Your task to perform on an android device: Open calendar and show me the first week of next month Image 0: 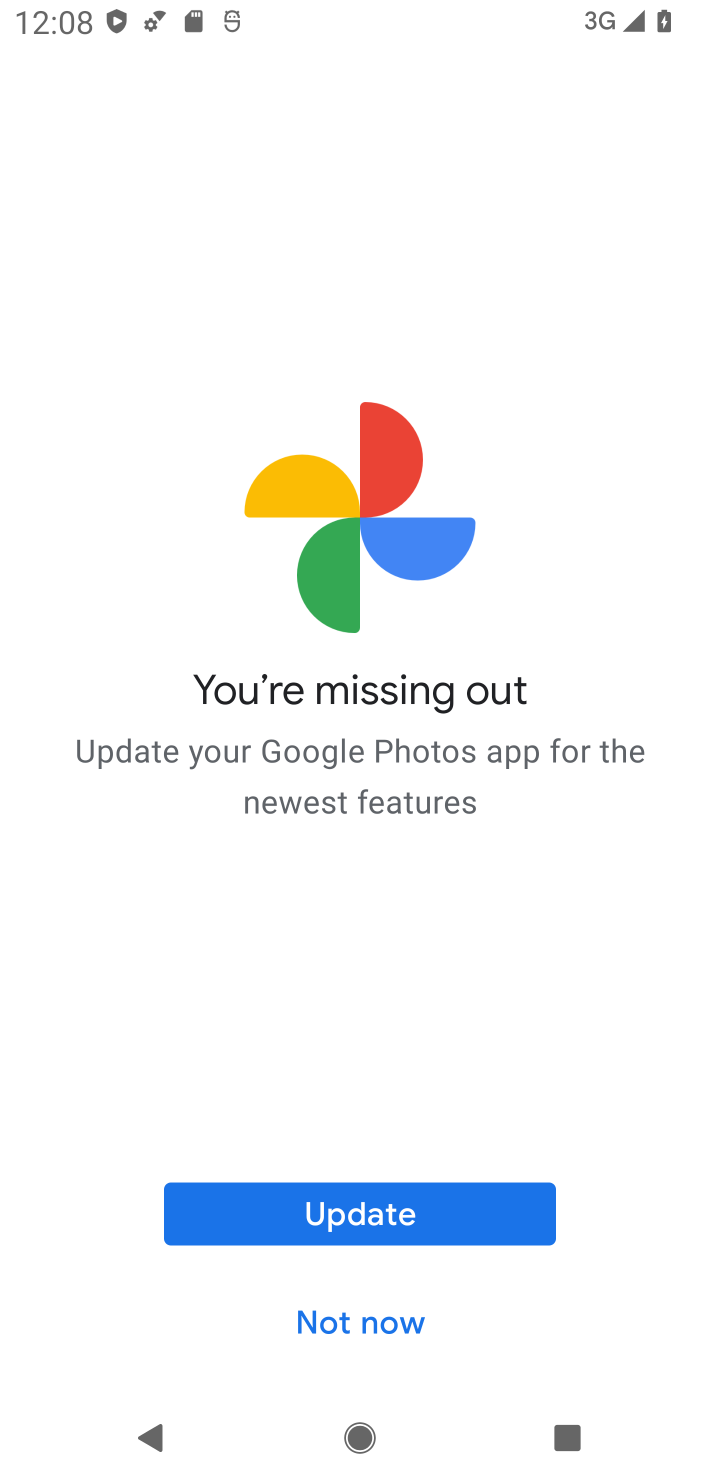
Step 0: click (332, 1329)
Your task to perform on an android device: Open calendar and show me the first week of next month Image 1: 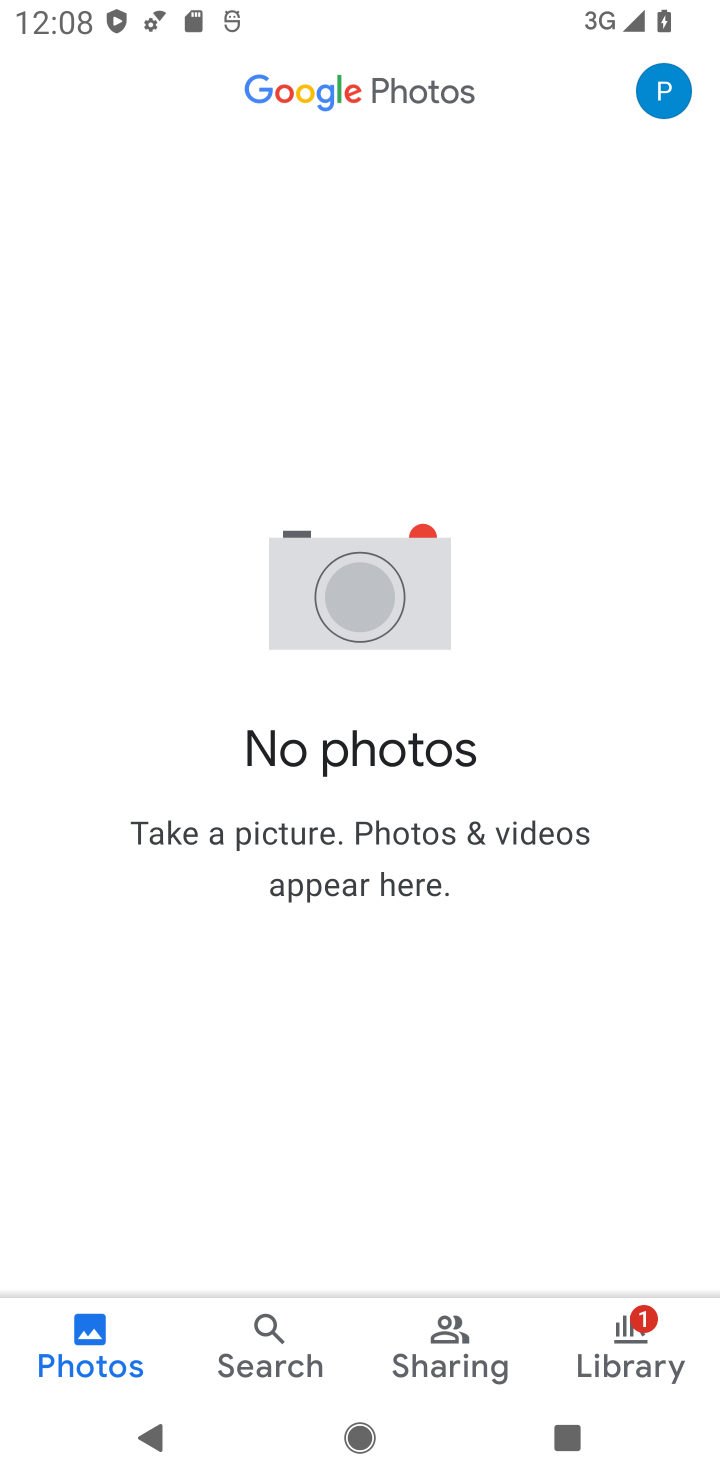
Step 1: press home button
Your task to perform on an android device: Open calendar and show me the first week of next month Image 2: 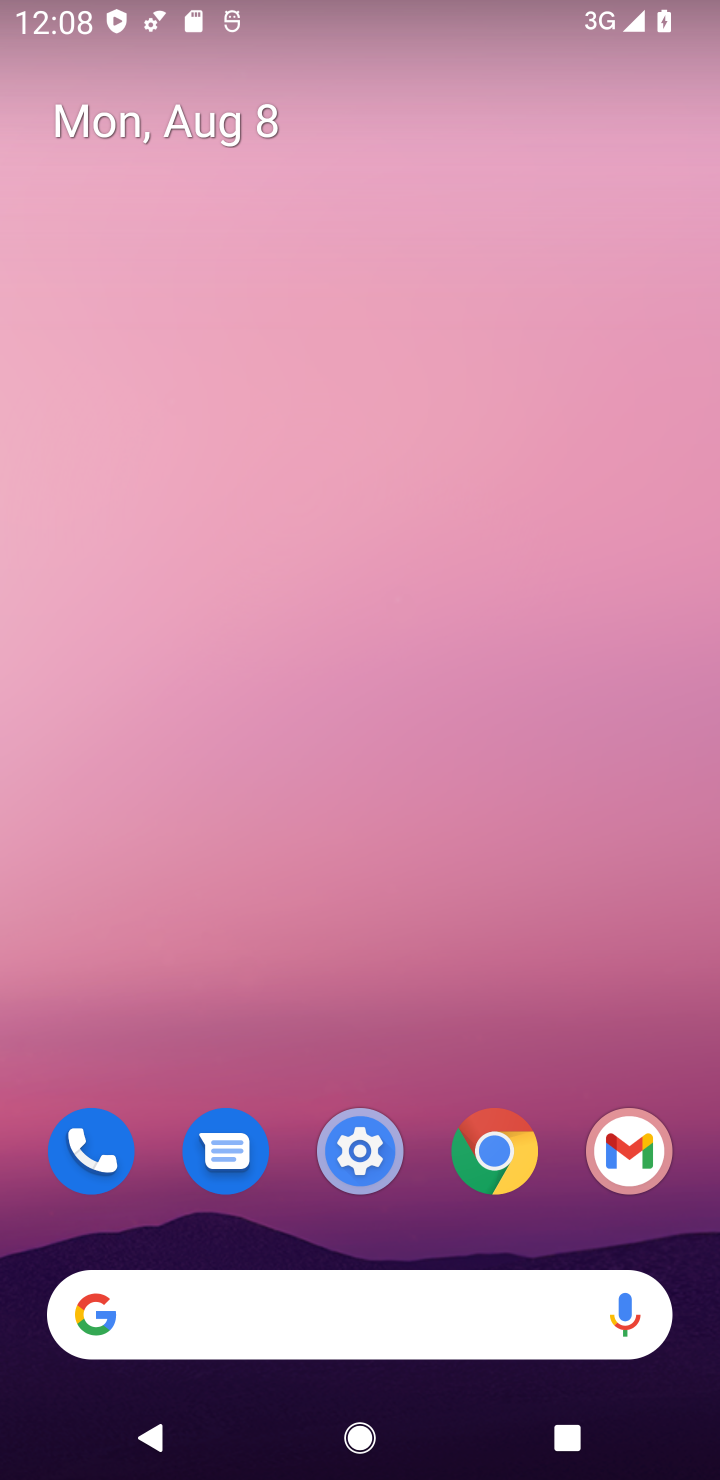
Step 2: drag from (367, 1266) to (371, 417)
Your task to perform on an android device: Open calendar and show me the first week of next month Image 3: 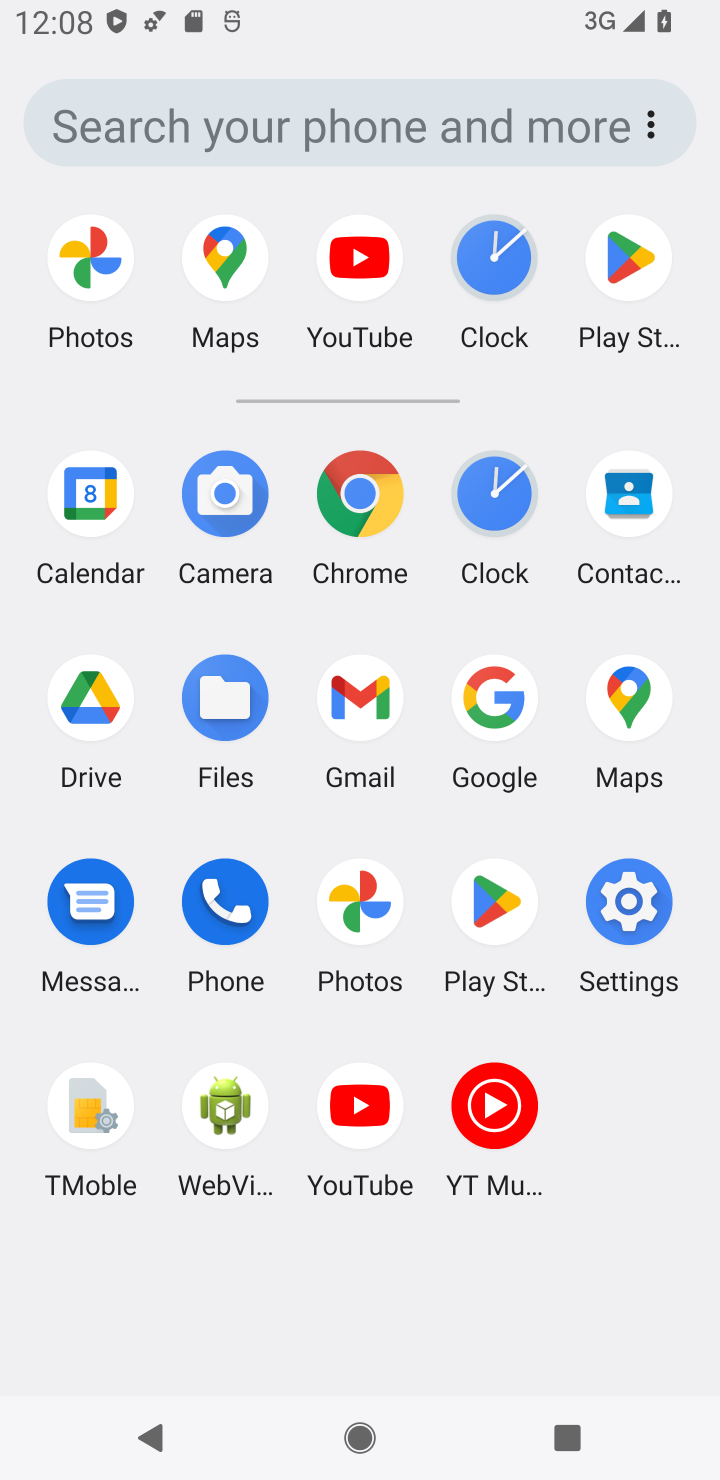
Step 3: click (91, 525)
Your task to perform on an android device: Open calendar and show me the first week of next month Image 4: 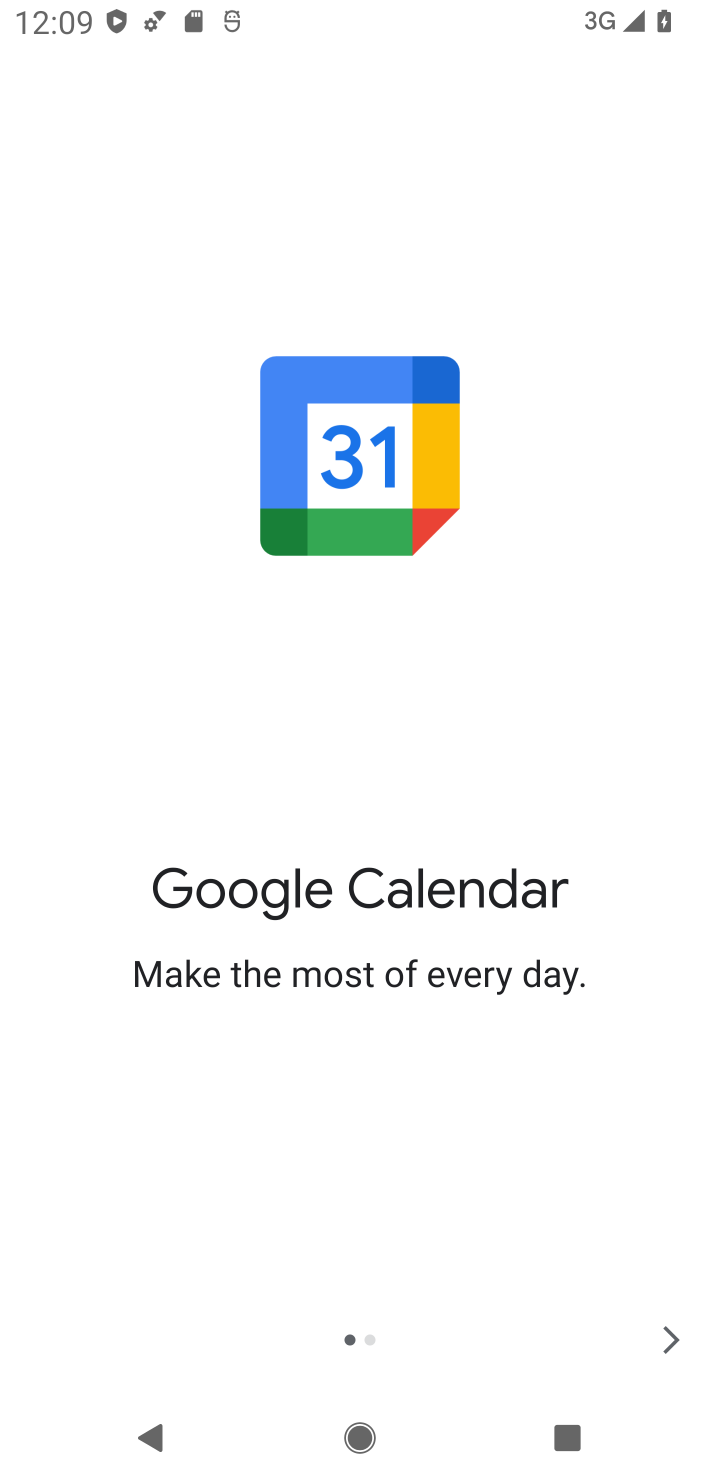
Step 4: click (662, 1331)
Your task to perform on an android device: Open calendar and show me the first week of next month Image 5: 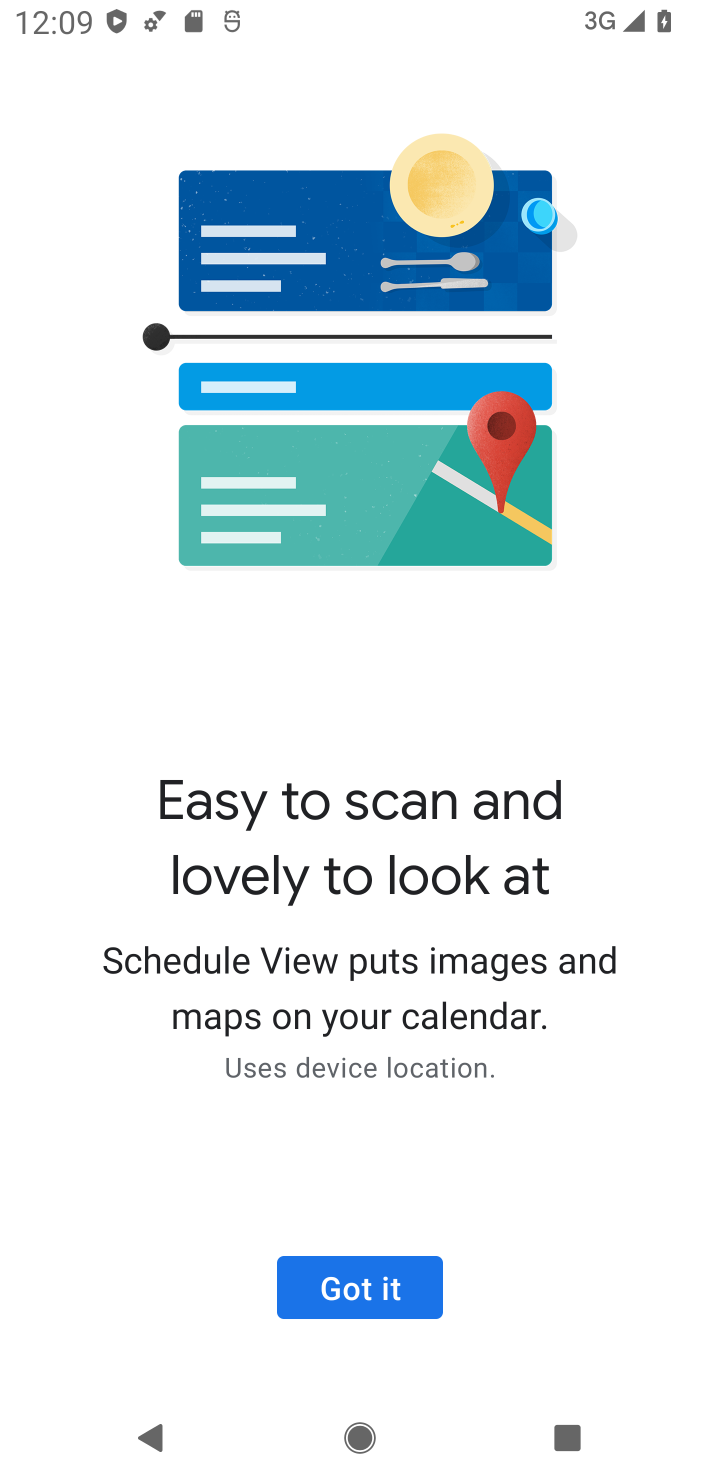
Step 5: click (316, 1278)
Your task to perform on an android device: Open calendar and show me the first week of next month Image 6: 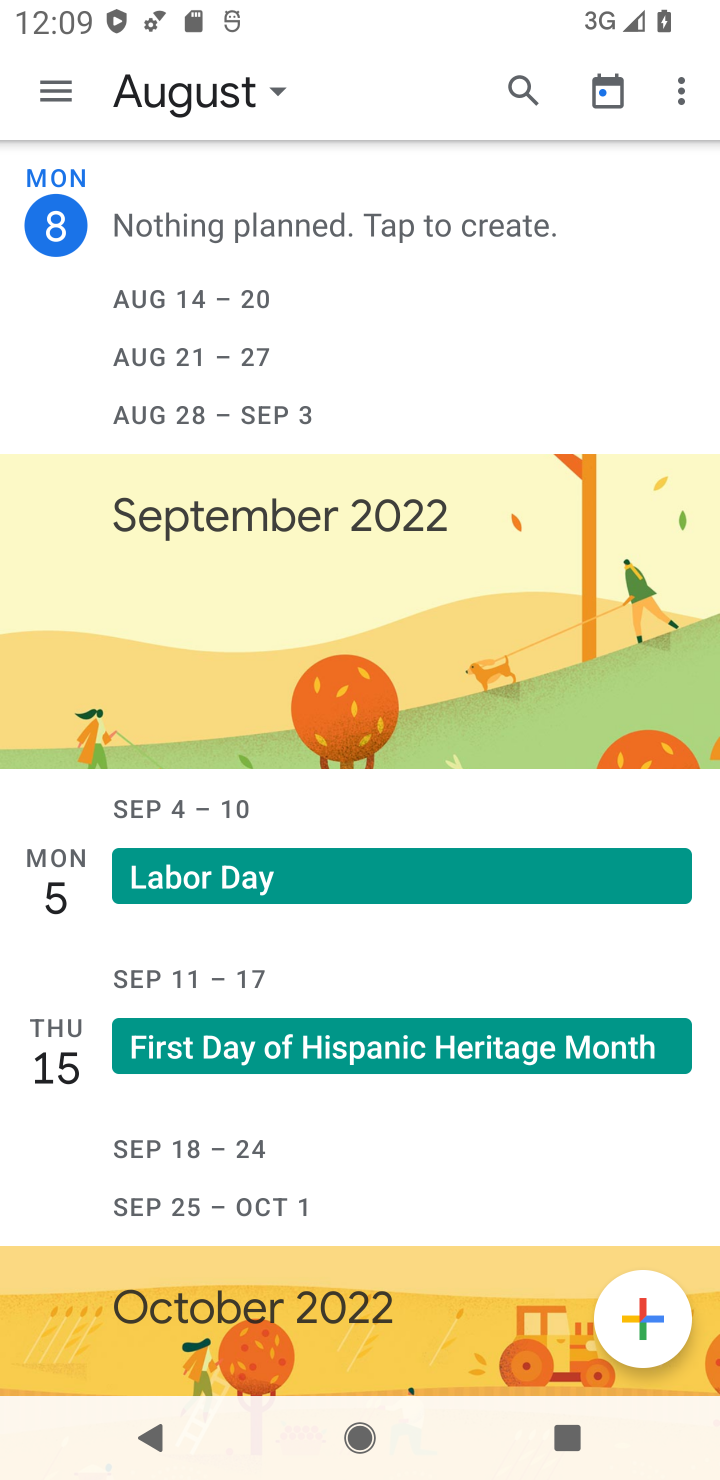
Step 6: click (200, 100)
Your task to perform on an android device: Open calendar and show me the first week of next month Image 7: 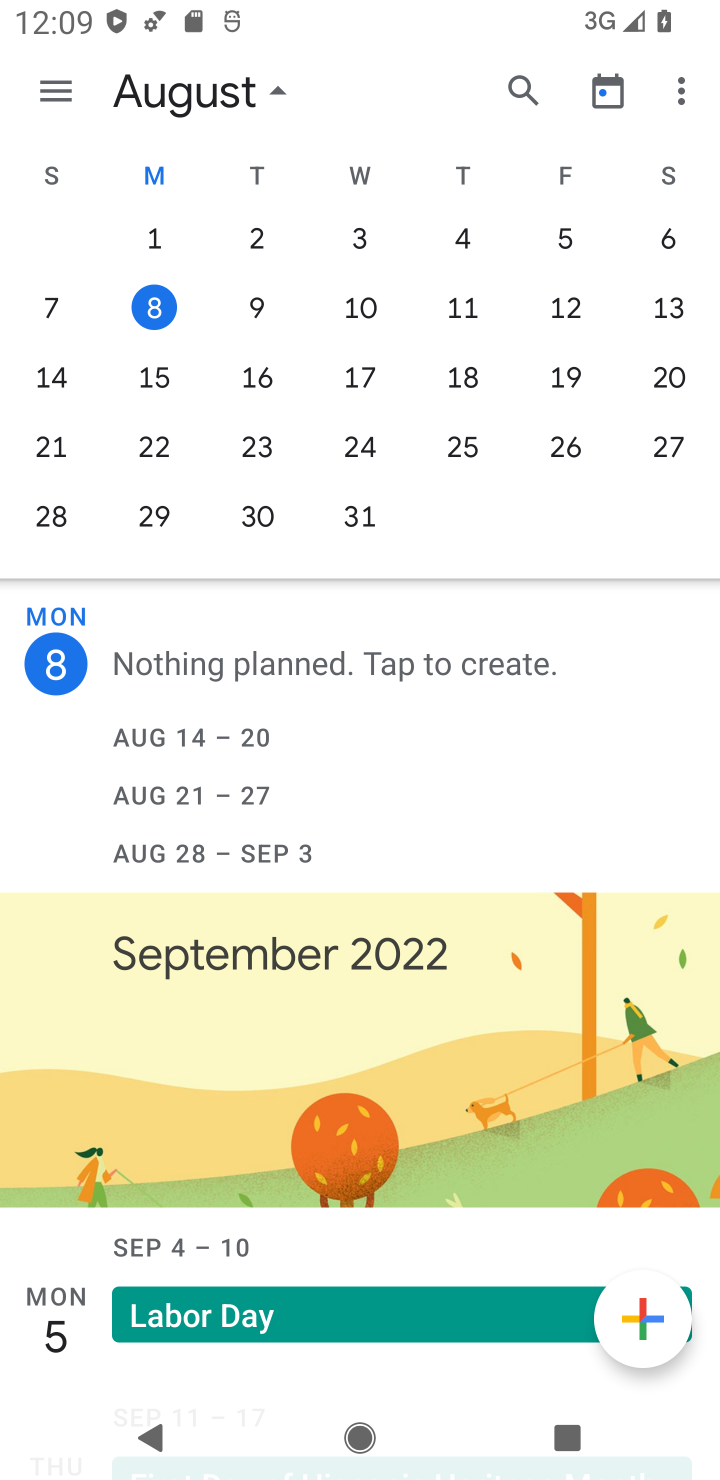
Step 7: drag from (594, 384) to (9, 484)
Your task to perform on an android device: Open calendar and show me the first week of next month Image 8: 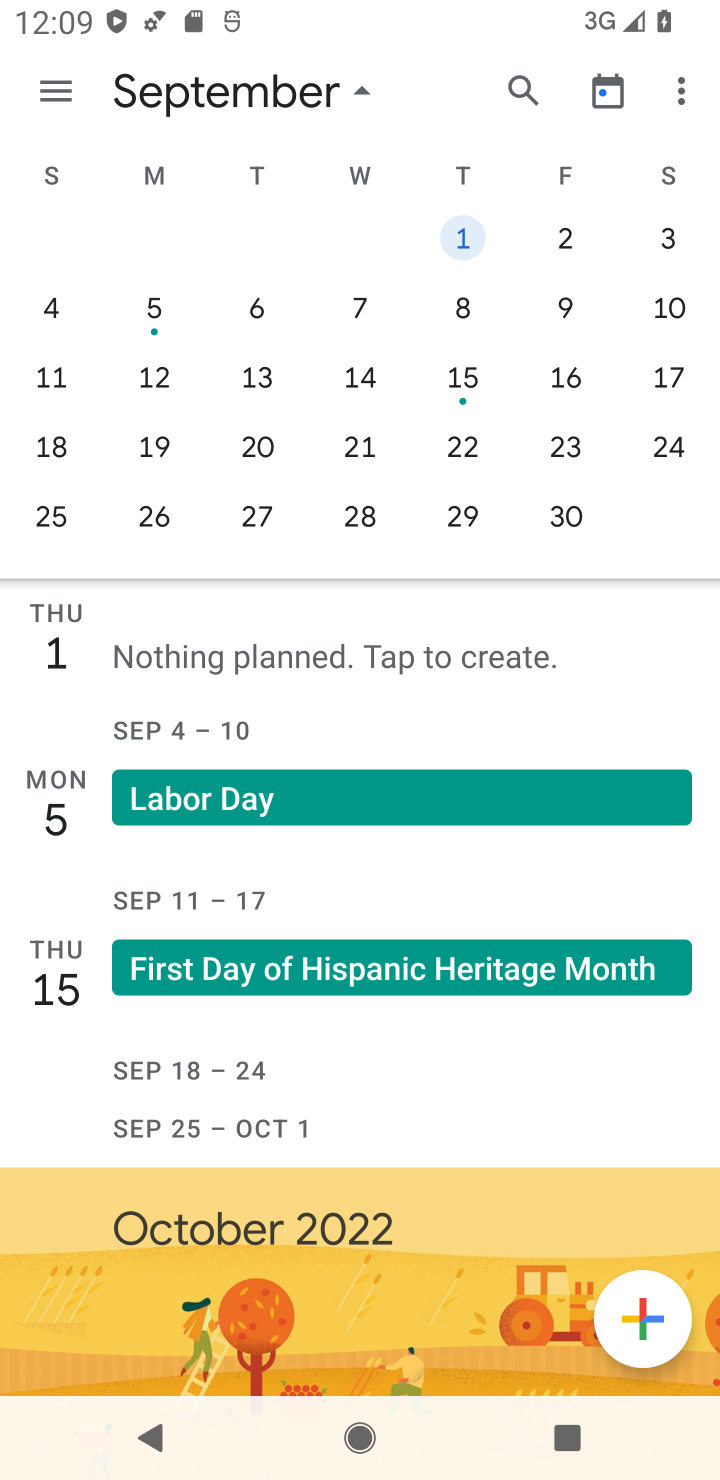
Step 8: click (471, 232)
Your task to perform on an android device: Open calendar and show me the first week of next month Image 9: 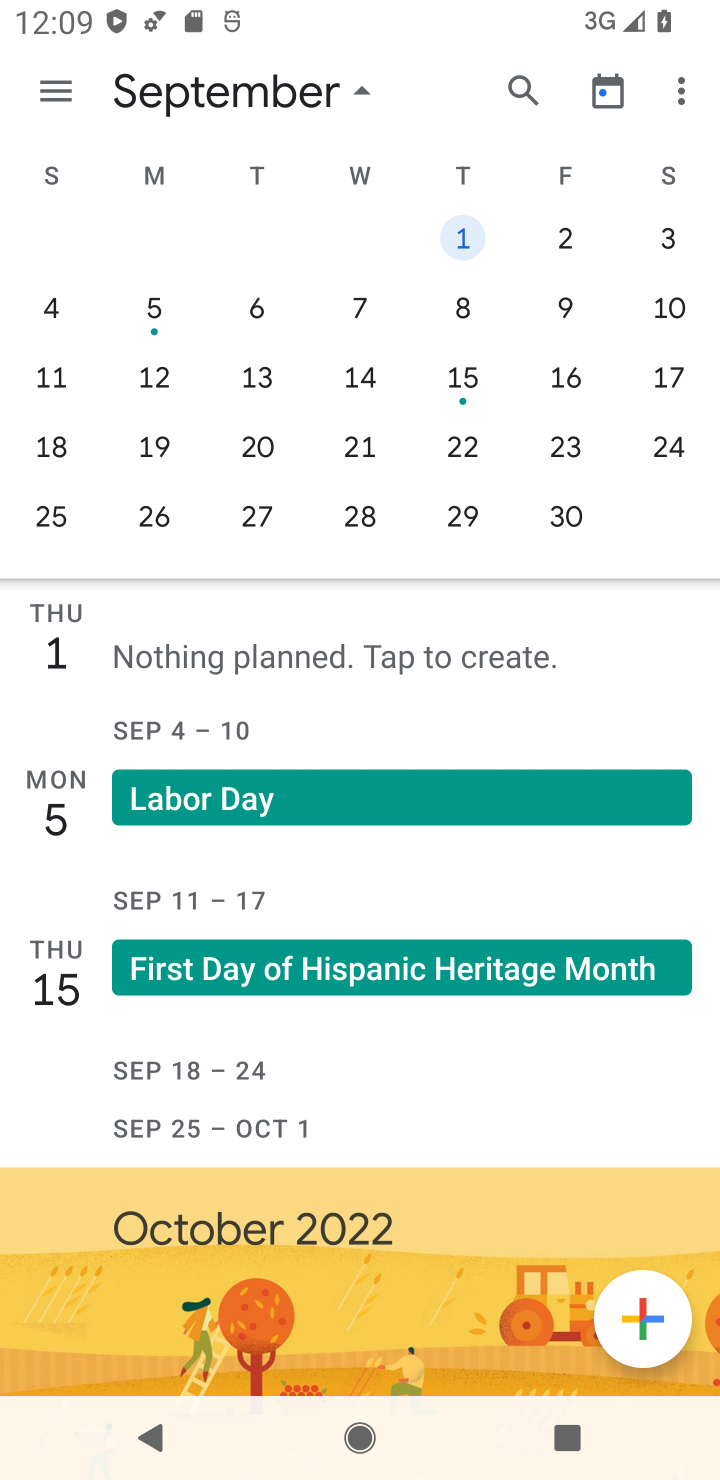
Step 9: task complete